Your task to perform on an android device: Set the phone to "Do not disturb". Image 0: 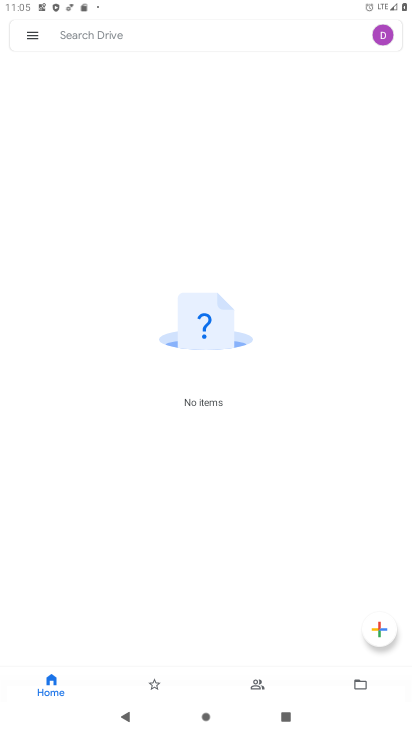
Step 0: press home button
Your task to perform on an android device: Set the phone to "Do not disturb". Image 1: 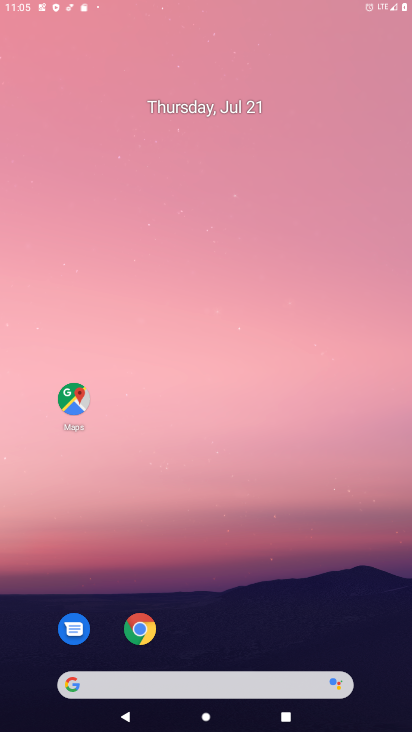
Step 1: drag from (279, 0) to (240, 703)
Your task to perform on an android device: Set the phone to "Do not disturb". Image 2: 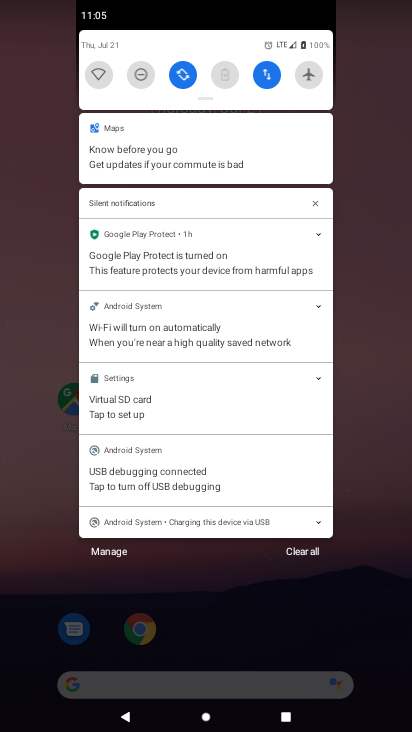
Step 2: click (144, 74)
Your task to perform on an android device: Set the phone to "Do not disturb". Image 3: 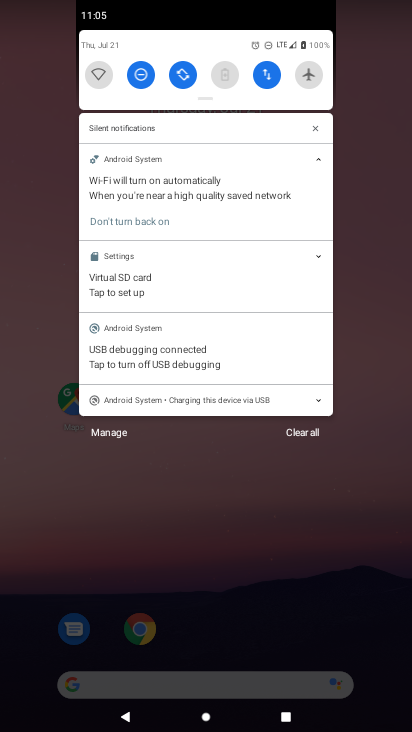
Step 3: task complete